Your task to perform on an android device: open wifi settings Image 0: 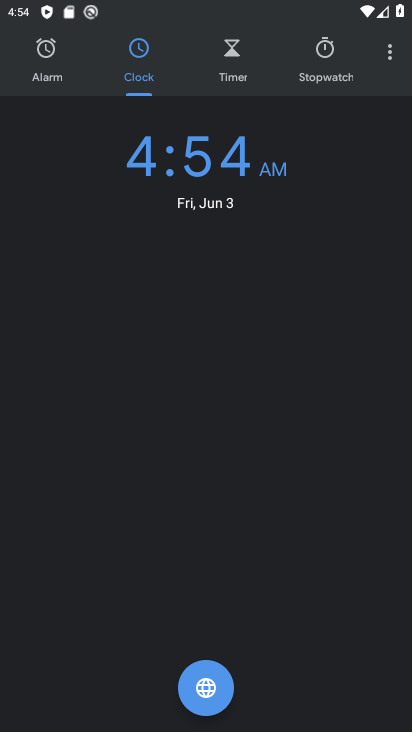
Step 0: press back button
Your task to perform on an android device: open wifi settings Image 1: 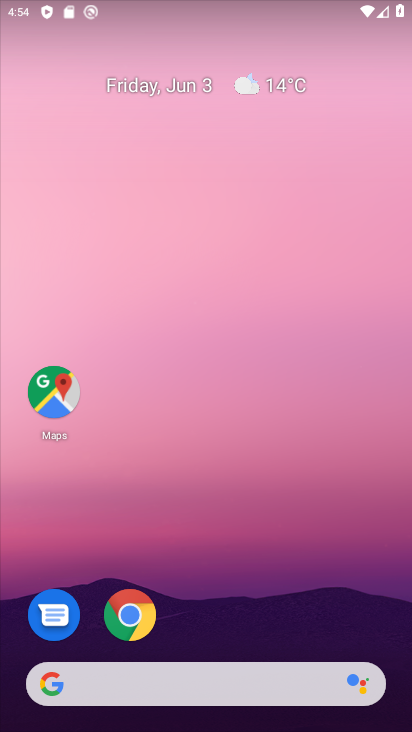
Step 1: drag from (197, 8) to (255, 601)
Your task to perform on an android device: open wifi settings Image 2: 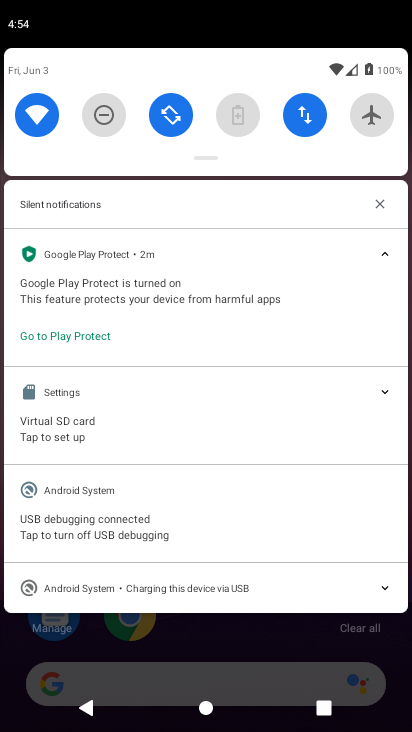
Step 2: click (37, 115)
Your task to perform on an android device: open wifi settings Image 3: 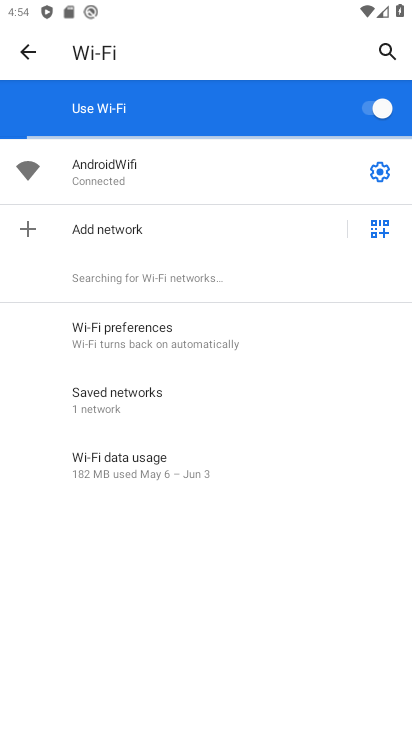
Step 3: task complete